Your task to perform on an android device: toggle show notifications on the lock screen Image 0: 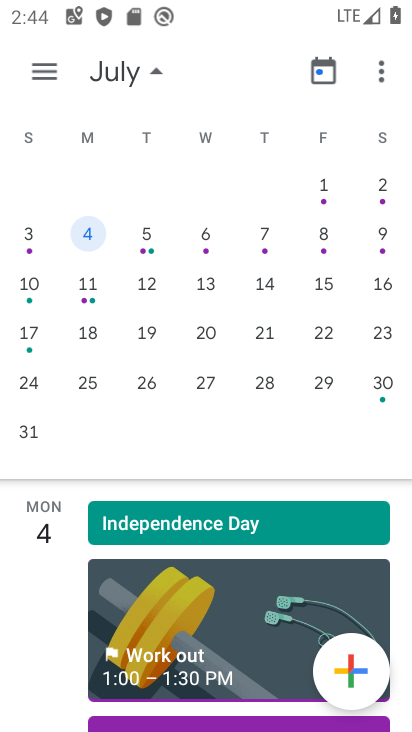
Step 0: press home button
Your task to perform on an android device: toggle show notifications on the lock screen Image 1: 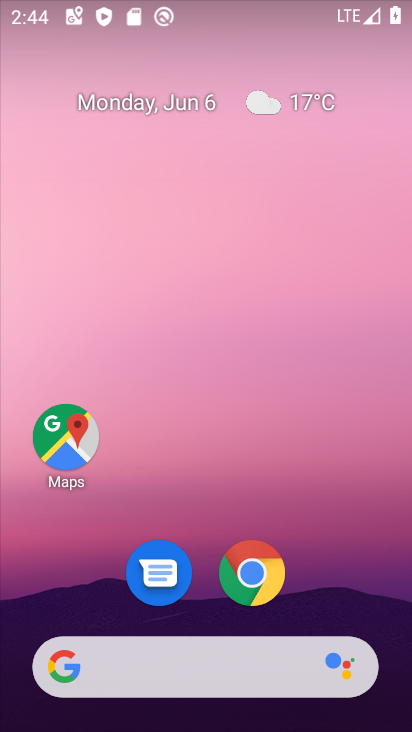
Step 1: drag from (313, 500) to (339, 52)
Your task to perform on an android device: toggle show notifications on the lock screen Image 2: 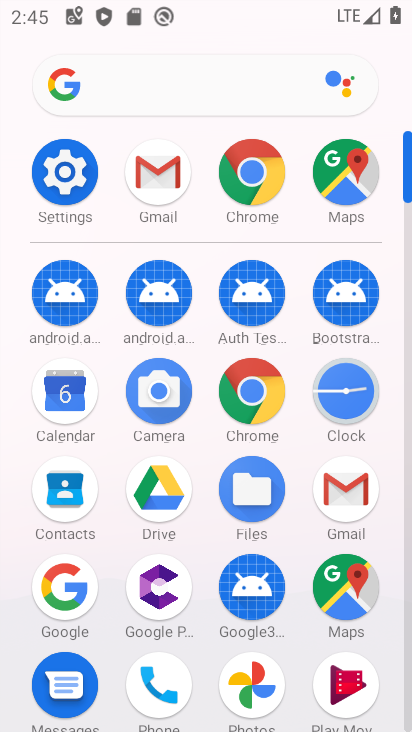
Step 2: click (75, 183)
Your task to perform on an android device: toggle show notifications on the lock screen Image 3: 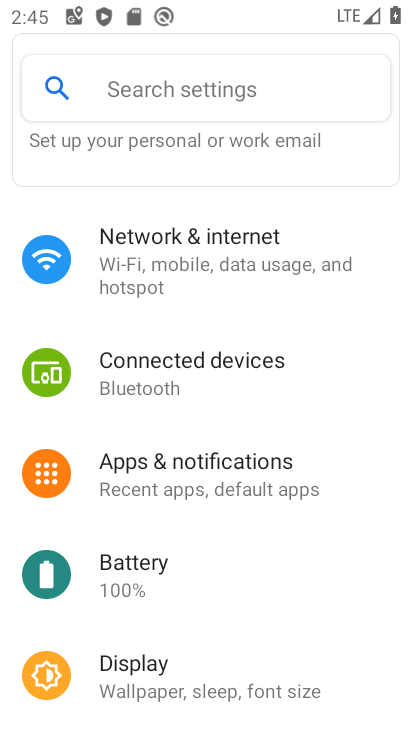
Step 3: drag from (347, 583) to (358, 419)
Your task to perform on an android device: toggle show notifications on the lock screen Image 4: 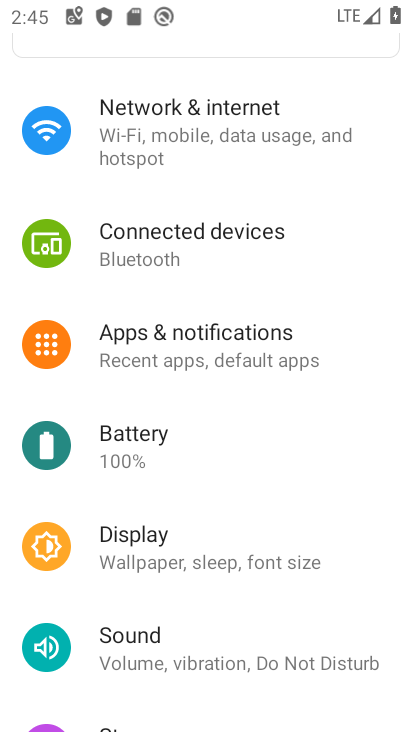
Step 4: drag from (350, 598) to (349, 480)
Your task to perform on an android device: toggle show notifications on the lock screen Image 5: 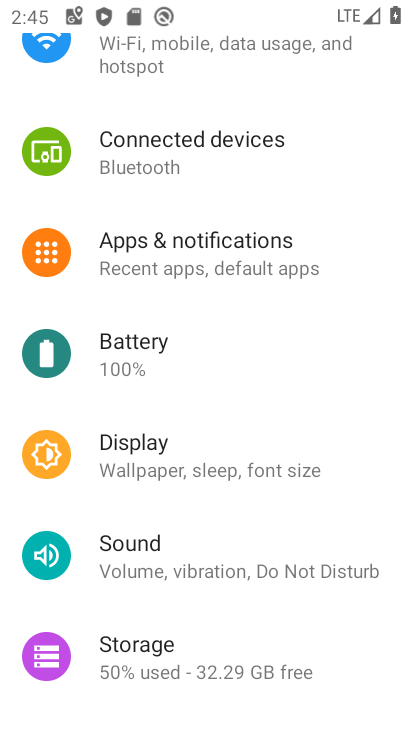
Step 5: click (289, 267)
Your task to perform on an android device: toggle show notifications on the lock screen Image 6: 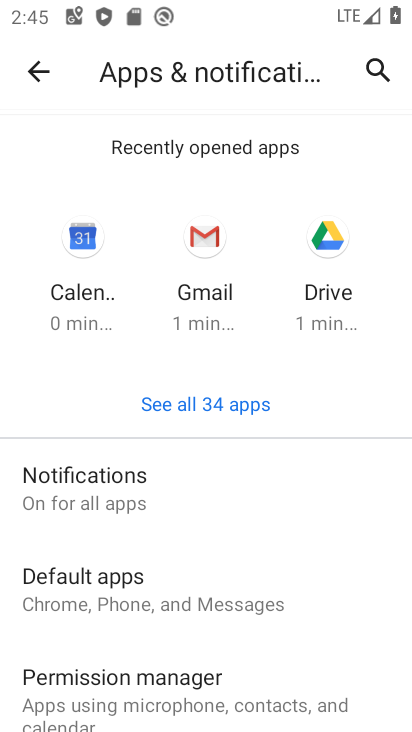
Step 6: click (151, 493)
Your task to perform on an android device: toggle show notifications on the lock screen Image 7: 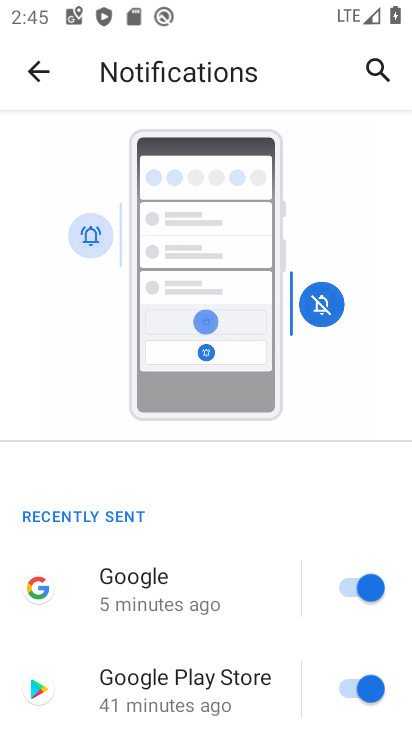
Step 7: drag from (223, 544) to (272, 277)
Your task to perform on an android device: toggle show notifications on the lock screen Image 8: 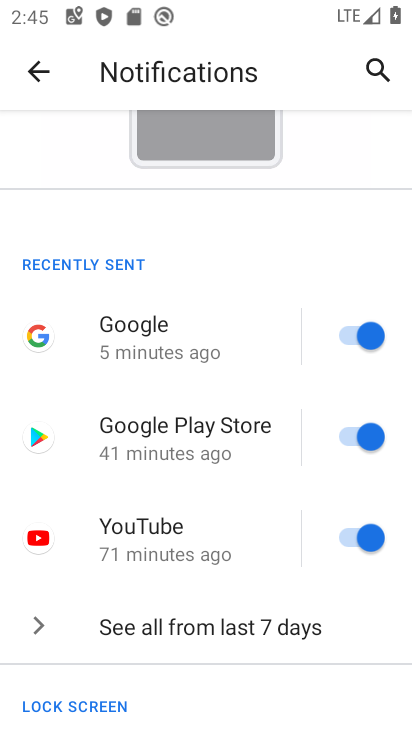
Step 8: drag from (266, 547) to (285, 342)
Your task to perform on an android device: toggle show notifications on the lock screen Image 9: 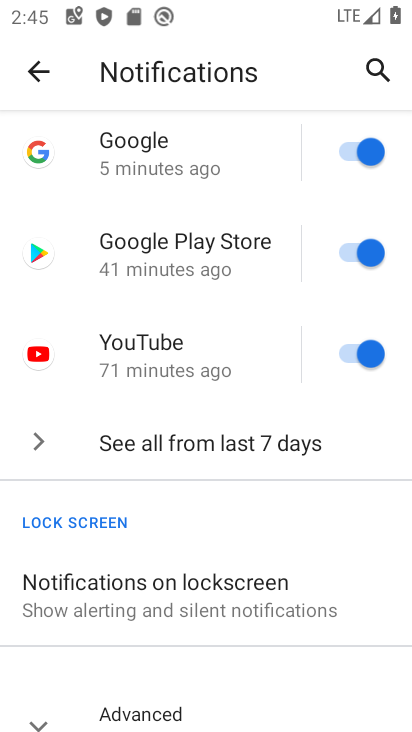
Step 9: click (222, 602)
Your task to perform on an android device: toggle show notifications on the lock screen Image 10: 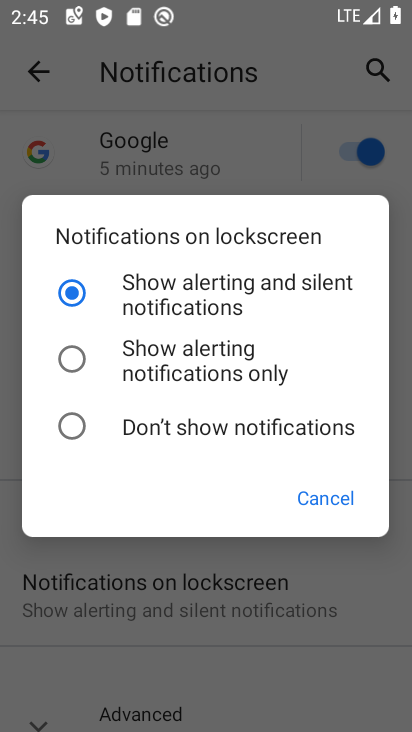
Step 10: task complete